Your task to perform on an android device: change text size in settings app Image 0: 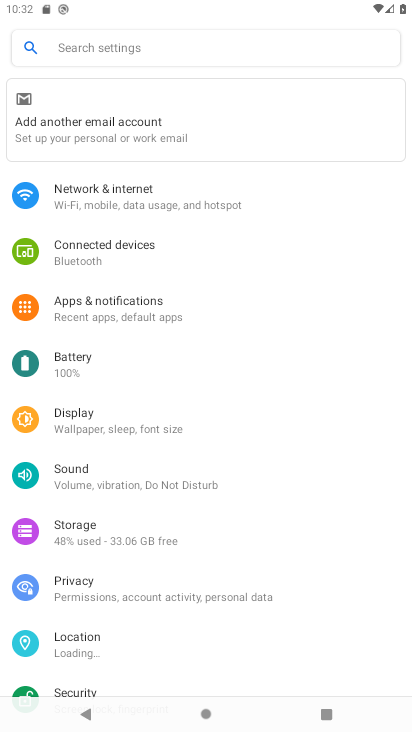
Step 0: press home button
Your task to perform on an android device: change text size in settings app Image 1: 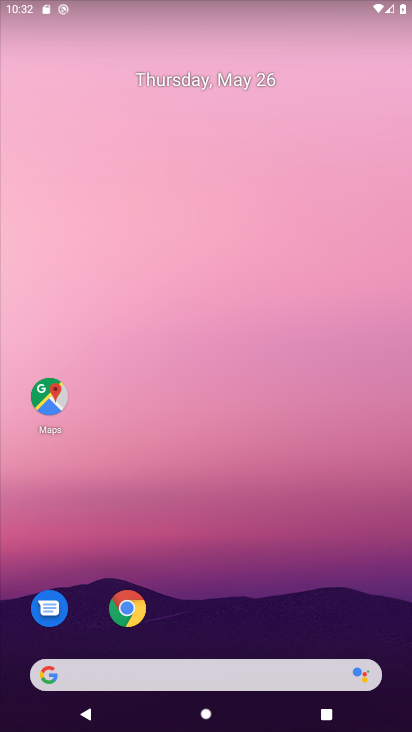
Step 1: drag from (398, 692) to (272, 207)
Your task to perform on an android device: change text size in settings app Image 2: 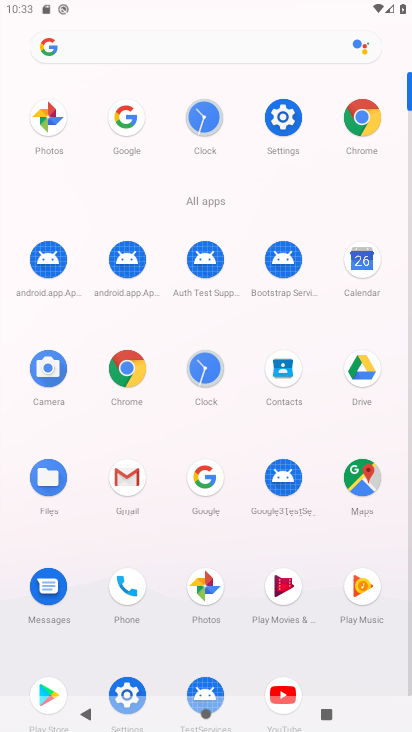
Step 2: click (278, 127)
Your task to perform on an android device: change text size in settings app Image 3: 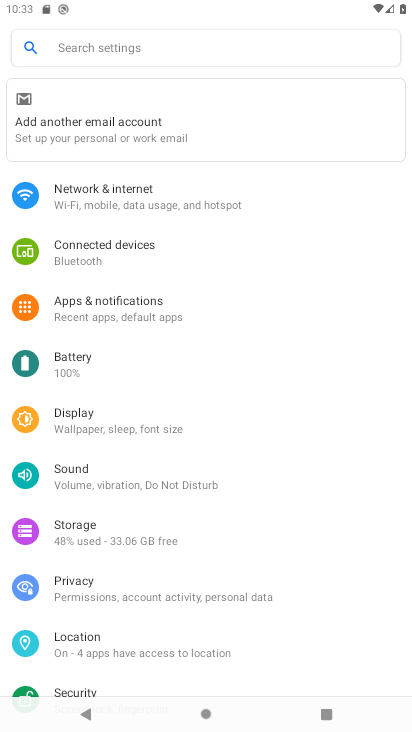
Step 3: click (90, 422)
Your task to perform on an android device: change text size in settings app Image 4: 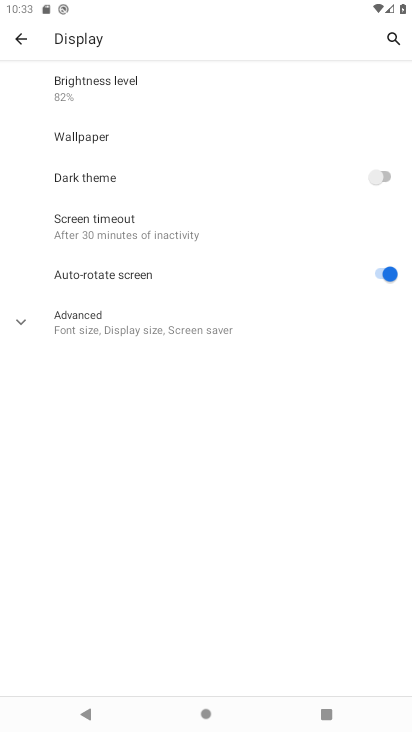
Step 4: click (97, 324)
Your task to perform on an android device: change text size in settings app Image 5: 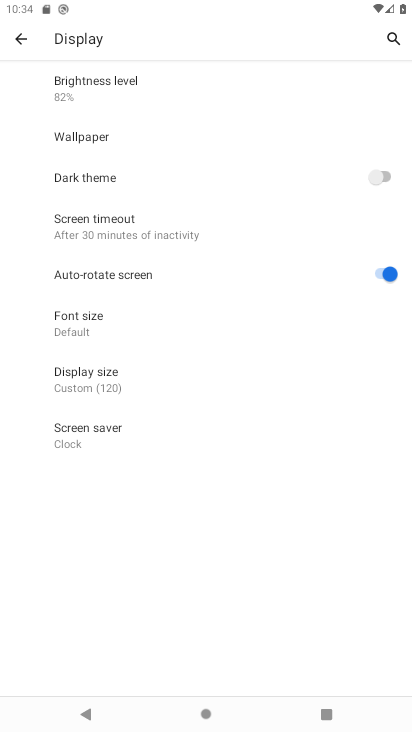
Step 5: click (77, 326)
Your task to perform on an android device: change text size in settings app Image 6: 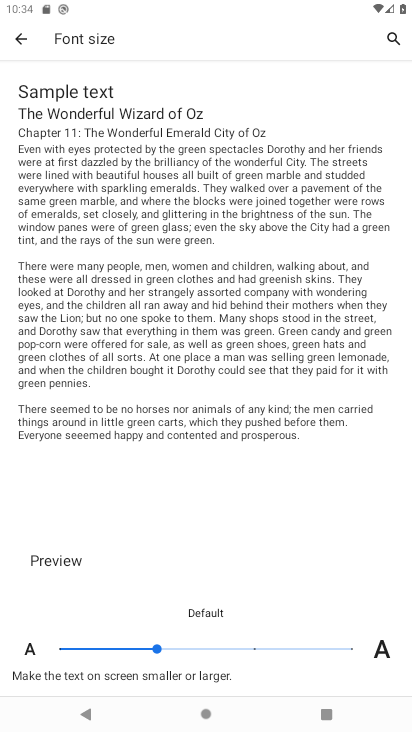
Step 6: click (201, 648)
Your task to perform on an android device: change text size in settings app Image 7: 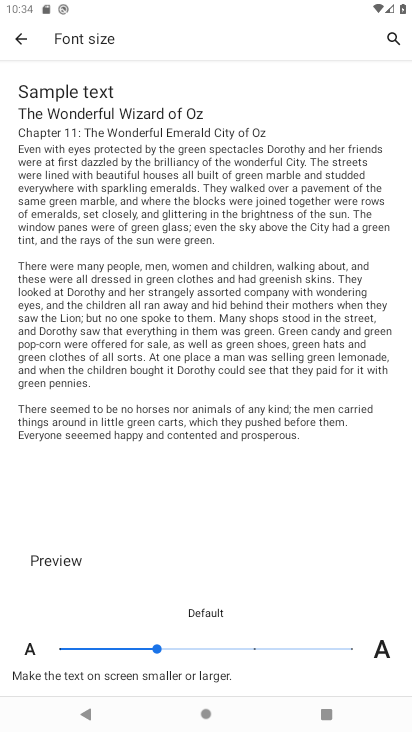
Step 7: click (254, 645)
Your task to perform on an android device: change text size in settings app Image 8: 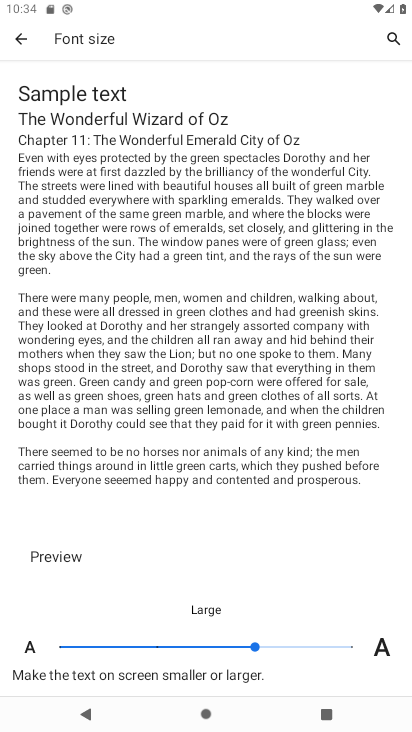
Step 8: task complete